Your task to perform on an android device: Open Wikipedia Image 0: 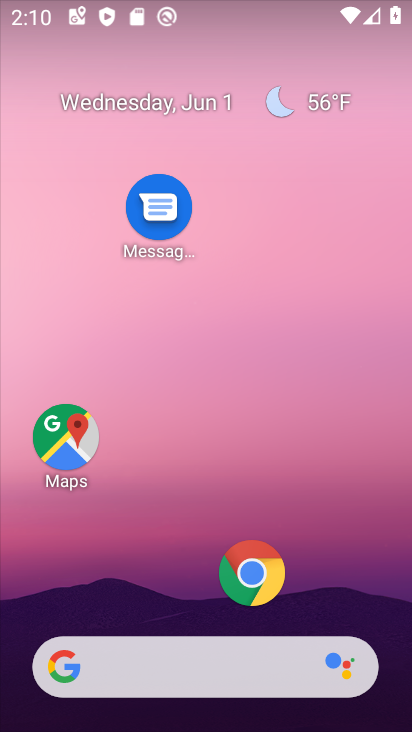
Step 0: drag from (297, 527) to (374, 19)
Your task to perform on an android device: Open Wikipedia Image 1: 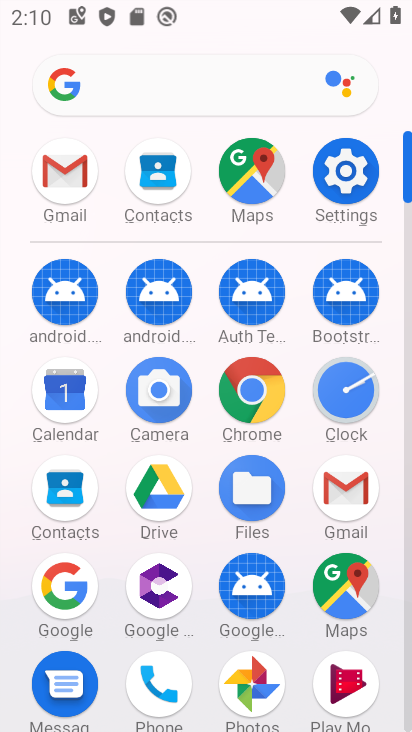
Step 1: click (198, 60)
Your task to perform on an android device: Open Wikipedia Image 2: 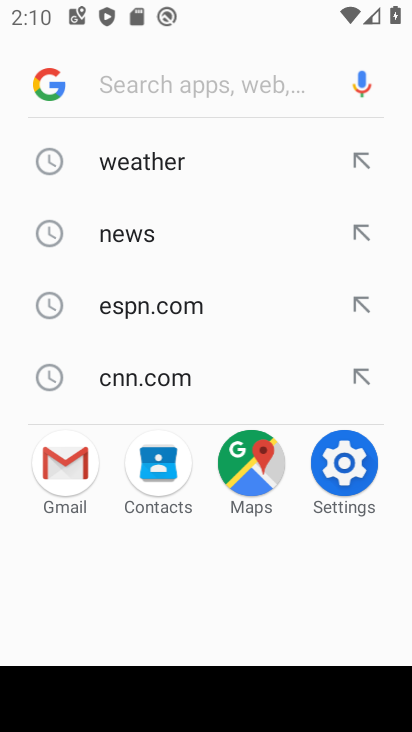
Step 2: type "Wikipedia"
Your task to perform on an android device: Open Wikipedia Image 3: 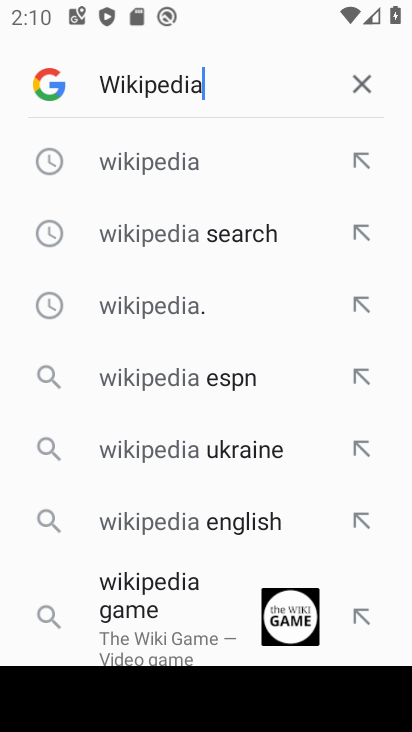
Step 3: click (192, 164)
Your task to perform on an android device: Open Wikipedia Image 4: 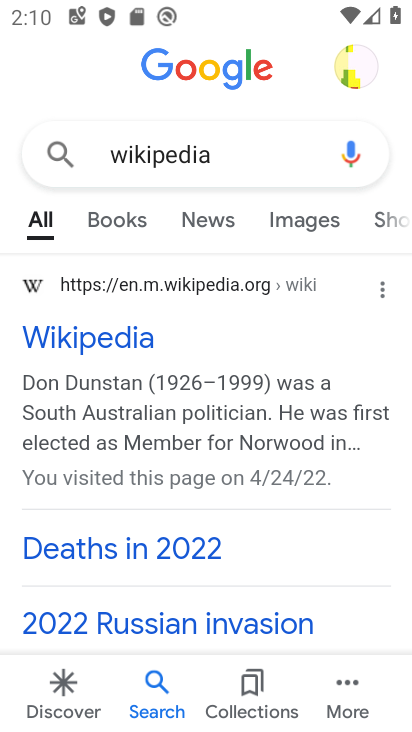
Step 4: drag from (322, 533) to (380, 199)
Your task to perform on an android device: Open Wikipedia Image 5: 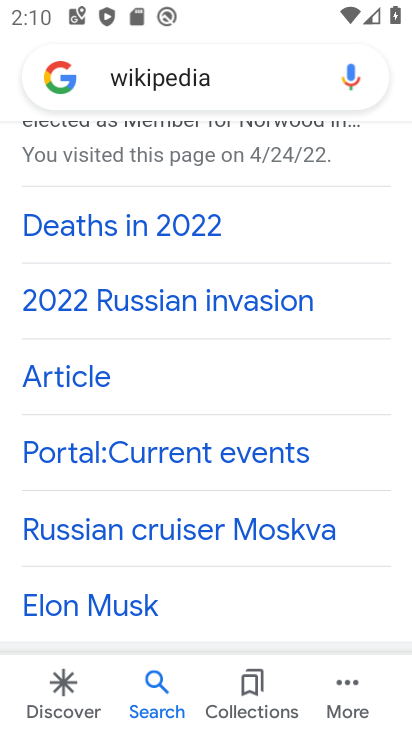
Step 5: click (99, 269)
Your task to perform on an android device: Open Wikipedia Image 6: 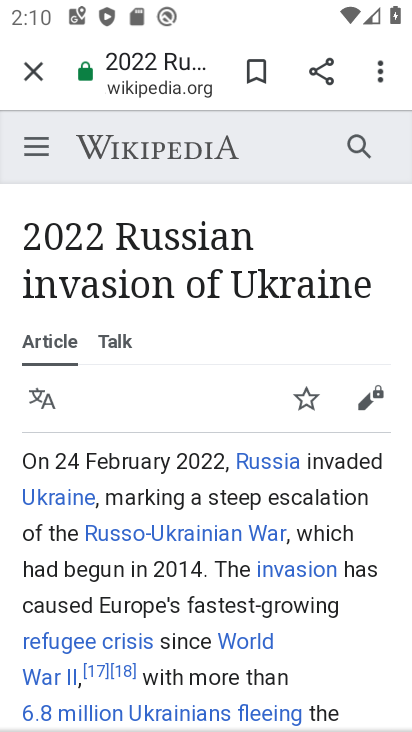
Step 6: task complete